Your task to perform on an android device: Open the Play Movies app and select the watchlist tab. Image 0: 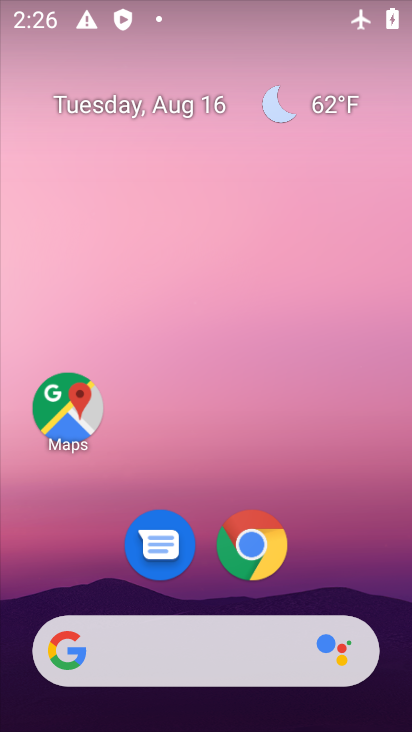
Step 0: drag from (175, 541) to (215, 264)
Your task to perform on an android device: Open the Play Movies app and select the watchlist tab. Image 1: 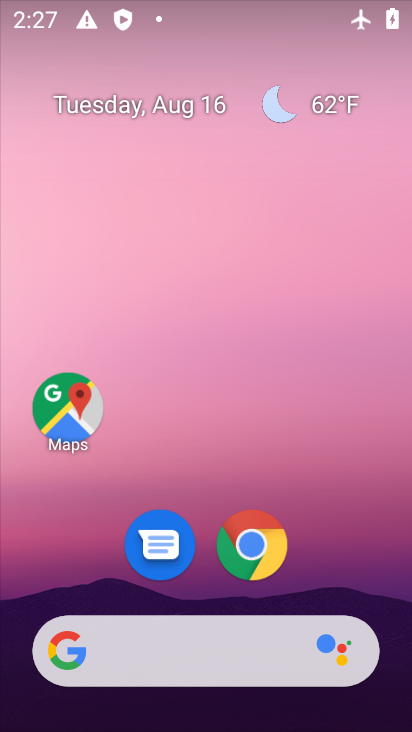
Step 1: drag from (196, 606) to (216, 355)
Your task to perform on an android device: Open the Play Movies app and select the watchlist tab. Image 2: 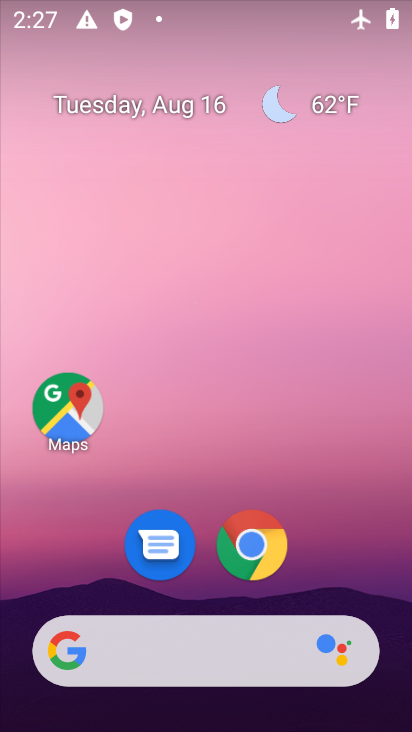
Step 2: drag from (224, 611) to (239, 256)
Your task to perform on an android device: Open the Play Movies app and select the watchlist tab. Image 3: 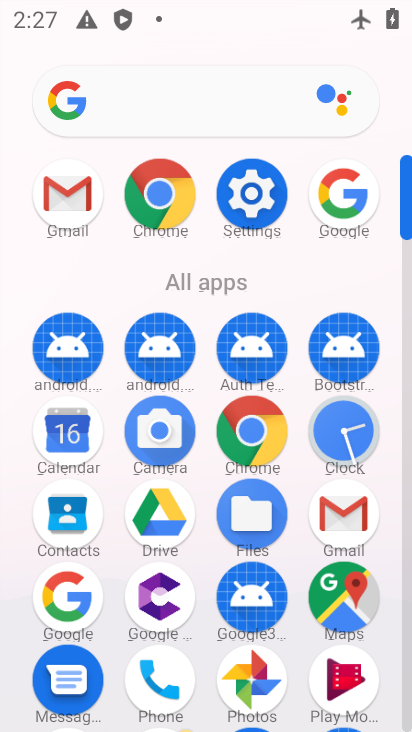
Step 3: drag from (227, 603) to (236, 356)
Your task to perform on an android device: Open the Play Movies app and select the watchlist tab. Image 4: 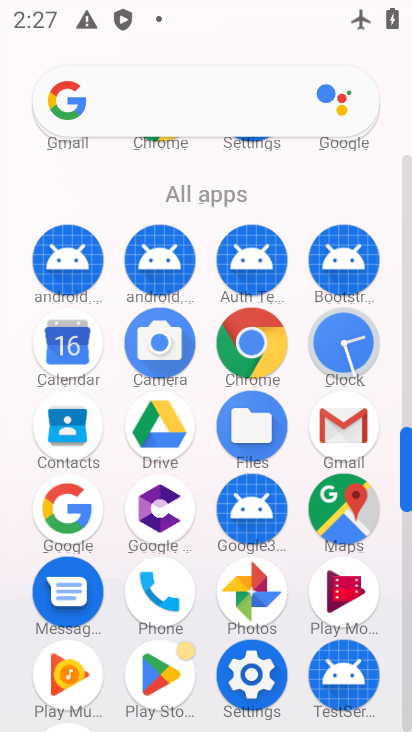
Step 4: click (334, 604)
Your task to perform on an android device: Open the Play Movies app and select the watchlist tab. Image 5: 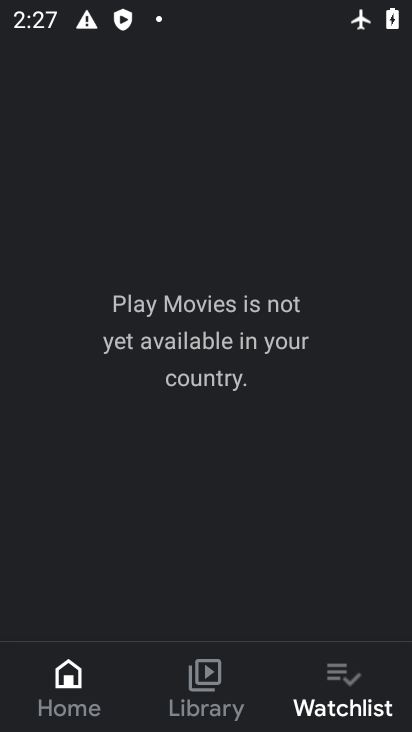
Step 5: click (333, 696)
Your task to perform on an android device: Open the Play Movies app and select the watchlist tab. Image 6: 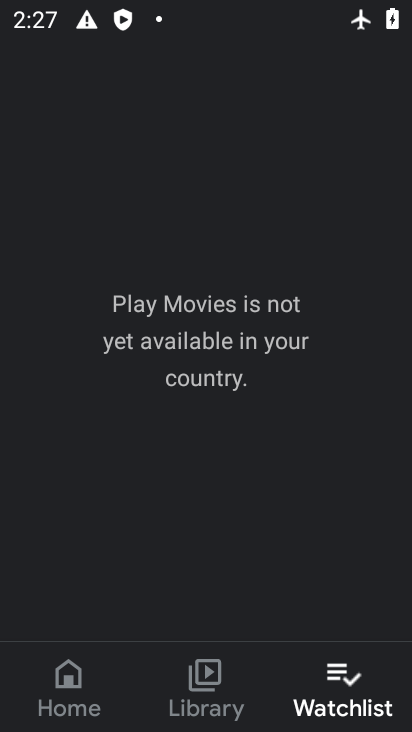
Step 6: task complete